Your task to perform on an android device: find which apps use the phone's location Image 0: 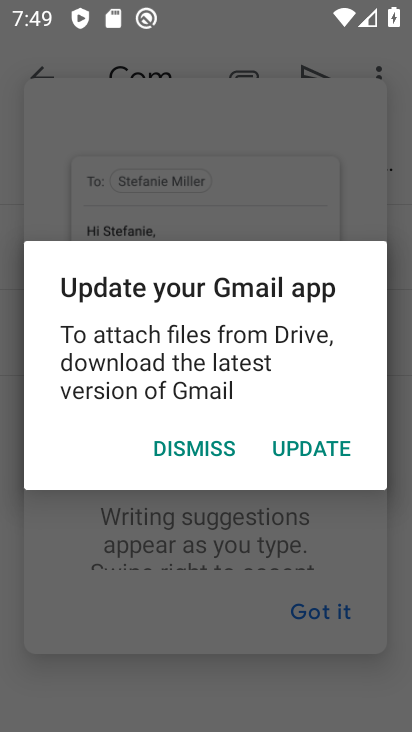
Step 0: press home button
Your task to perform on an android device: find which apps use the phone's location Image 1: 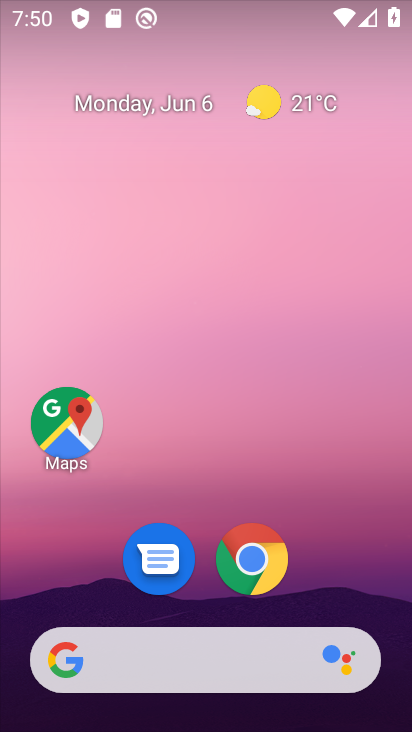
Step 1: drag from (241, 721) to (245, 108)
Your task to perform on an android device: find which apps use the phone's location Image 2: 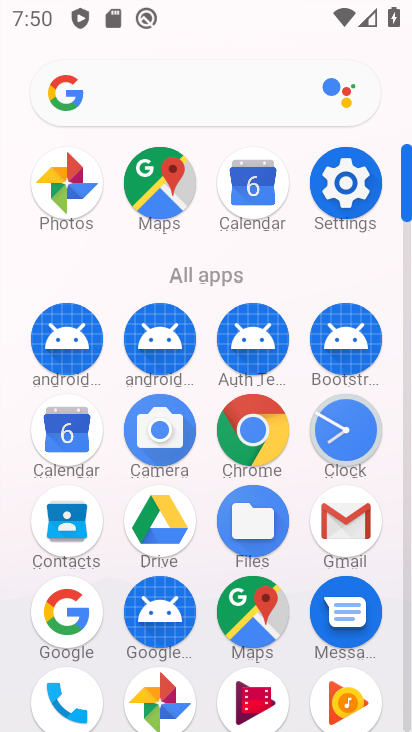
Step 2: click (343, 181)
Your task to perform on an android device: find which apps use the phone's location Image 3: 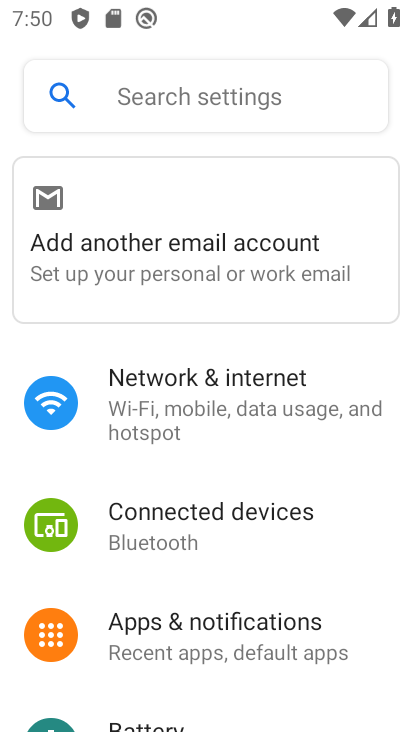
Step 3: drag from (153, 692) to (163, 356)
Your task to perform on an android device: find which apps use the phone's location Image 4: 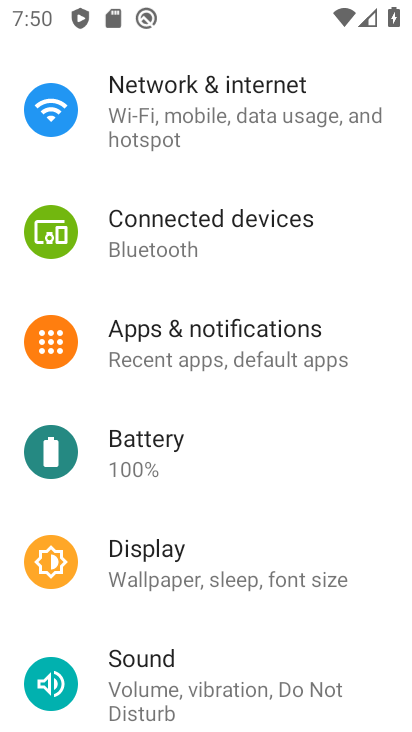
Step 4: drag from (164, 666) to (164, 301)
Your task to perform on an android device: find which apps use the phone's location Image 5: 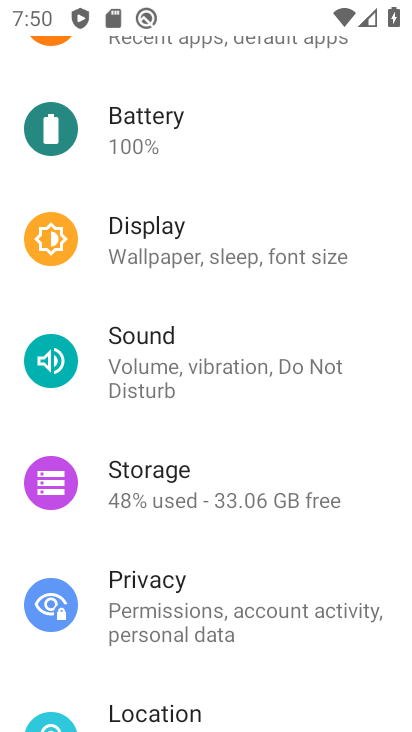
Step 5: drag from (145, 698) to (145, 375)
Your task to perform on an android device: find which apps use the phone's location Image 6: 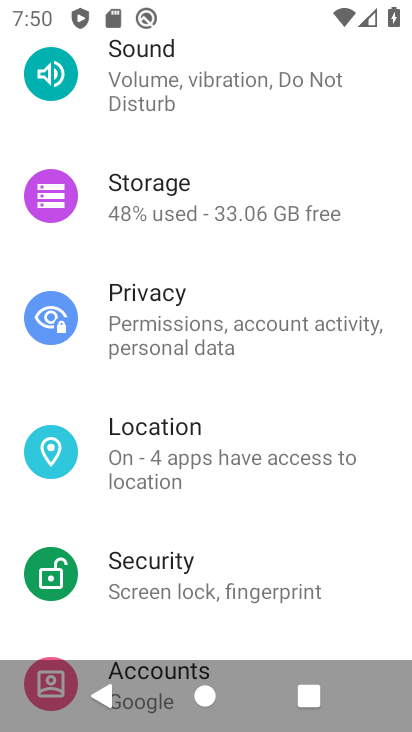
Step 6: click (149, 447)
Your task to perform on an android device: find which apps use the phone's location Image 7: 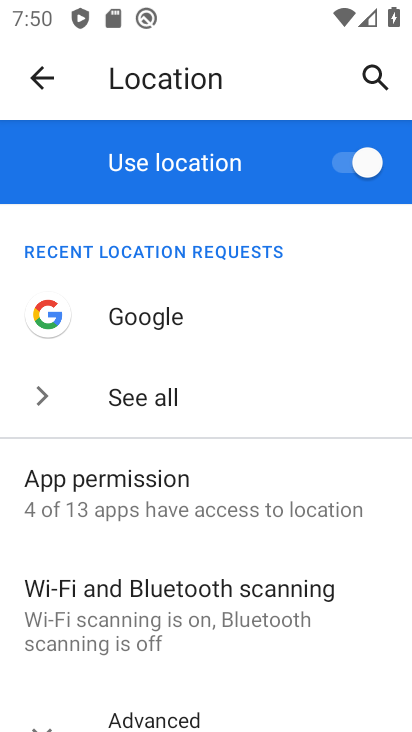
Step 7: click (106, 499)
Your task to perform on an android device: find which apps use the phone's location Image 8: 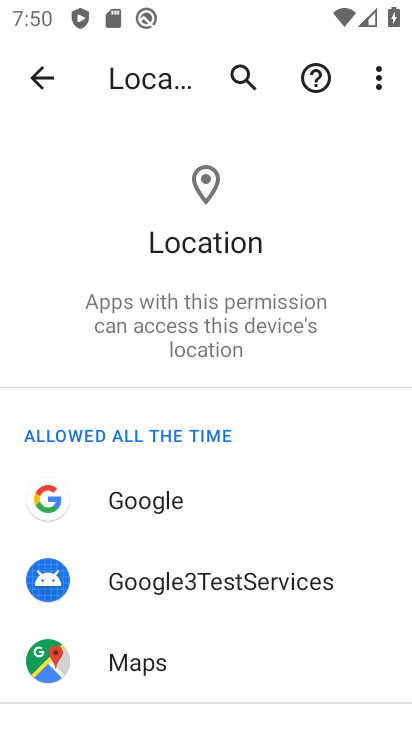
Step 8: task complete